Your task to perform on an android device: Open Youtube and go to the subscriptions tab Image 0: 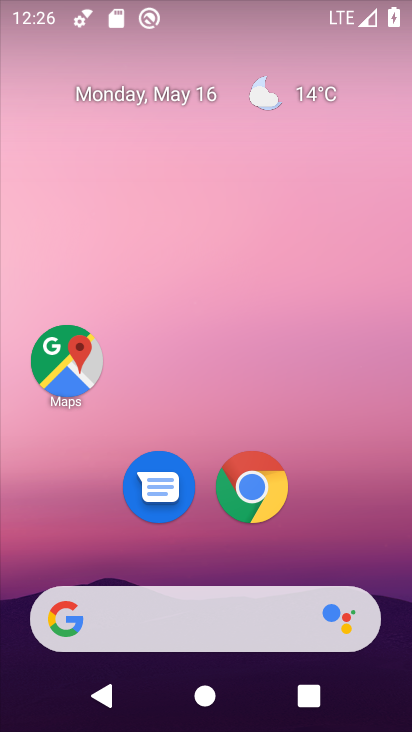
Step 0: drag from (69, 523) to (251, 134)
Your task to perform on an android device: Open Youtube and go to the subscriptions tab Image 1: 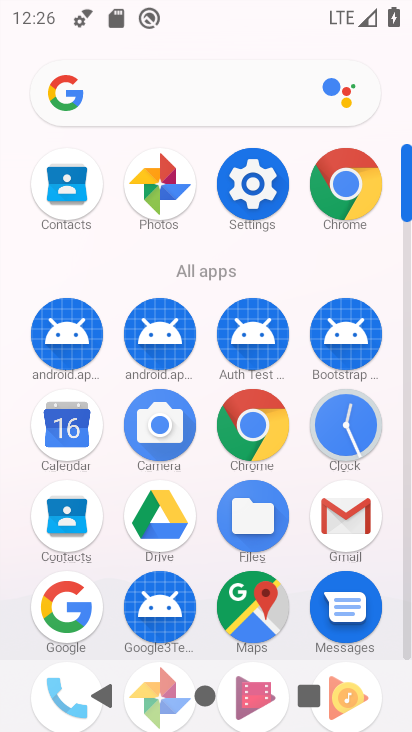
Step 1: drag from (201, 577) to (299, 260)
Your task to perform on an android device: Open Youtube and go to the subscriptions tab Image 2: 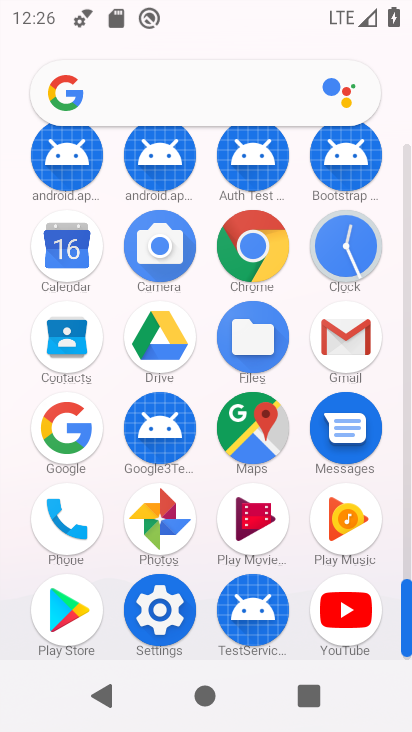
Step 2: click (346, 613)
Your task to perform on an android device: Open Youtube and go to the subscriptions tab Image 3: 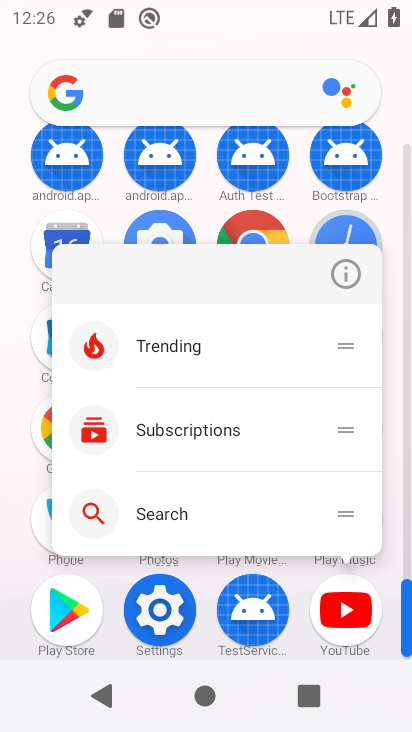
Step 3: click (346, 586)
Your task to perform on an android device: Open Youtube and go to the subscriptions tab Image 4: 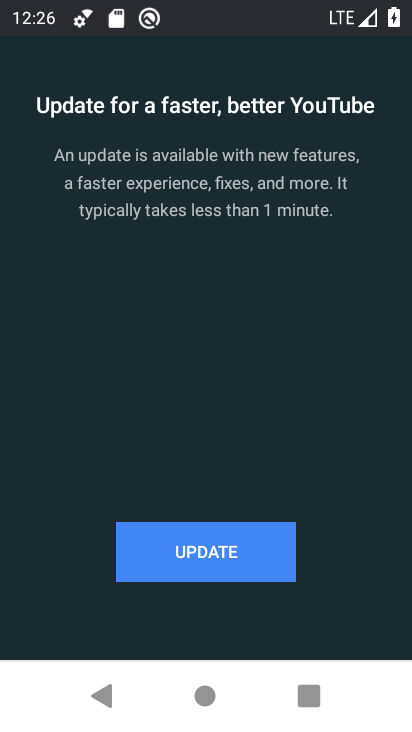
Step 4: click (270, 542)
Your task to perform on an android device: Open Youtube and go to the subscriptions tab Image 5: 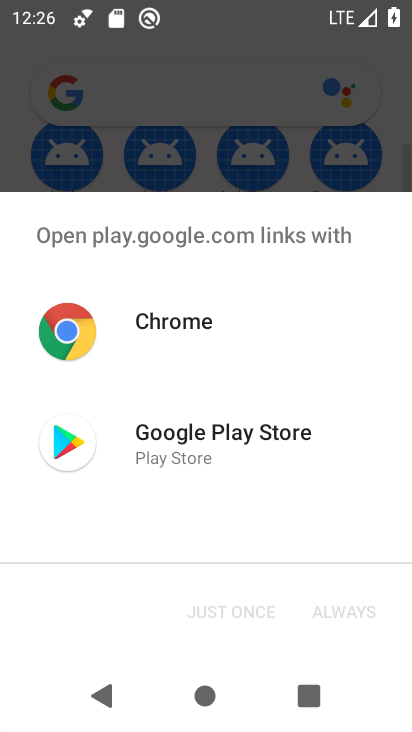
Step 5: click (339, 435)
Your task to perform on an android device: Open Youtube and go to the subscriptions tab Image 6: 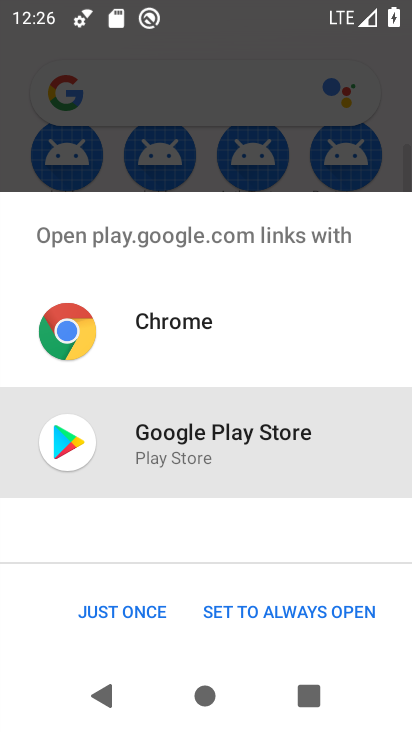
Step 6: click (135, 612)
Your task to perform on an android device: Open Youtube and go to the subscriptions tab Image 7: 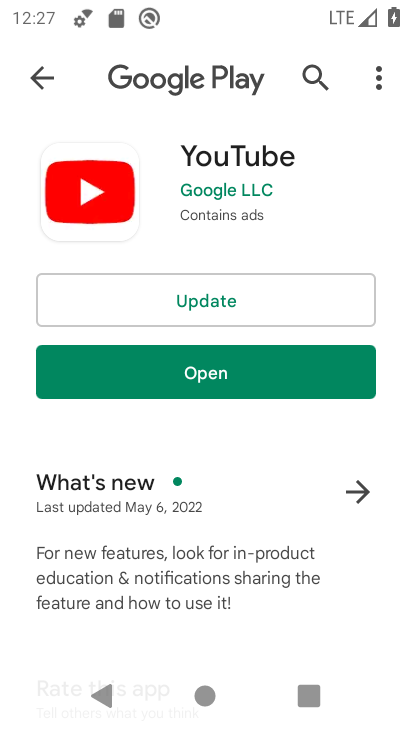
Step 7: click (225, 313)
Your task to perform on an android device: Open Youtube and go to the subscriptions tab Image 8: 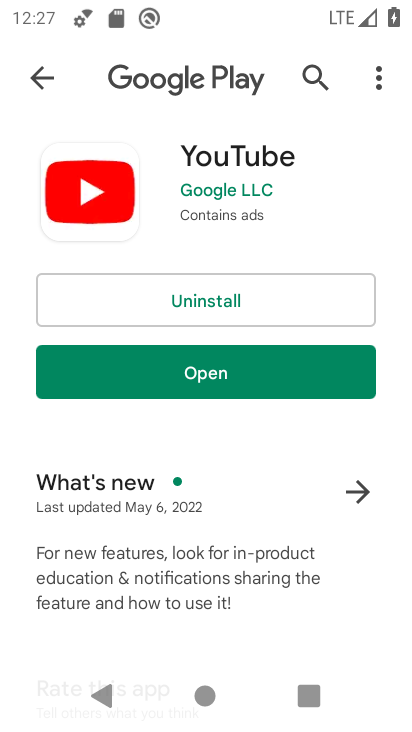
Step 8: click (258, 371)
Your task to perform on an android device: Open Youtube and go to the subscriptions tab Image 9: 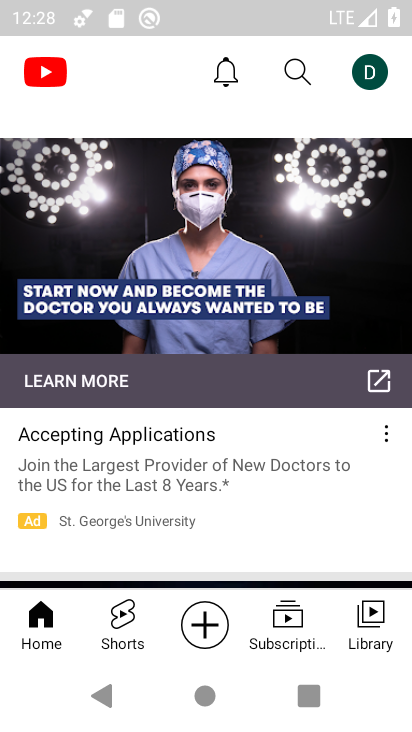
Step 9: click (307, 626)
Your task to perform on an android device: Open Youtube and go to the subscriptions tab Image 10: 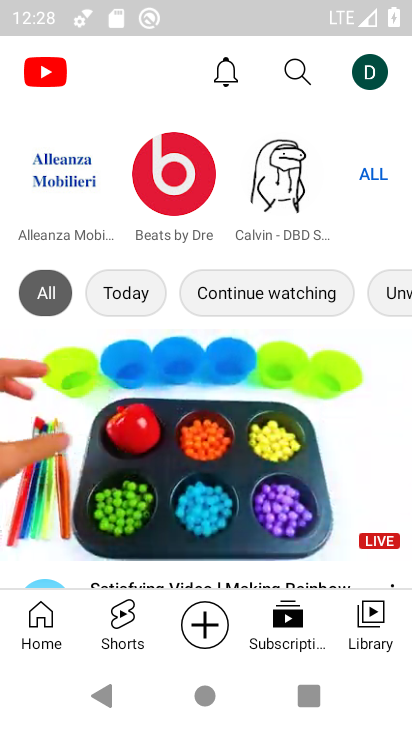
Step 10: task complete